Your task to perform on an android device: manage bookmarks in the chrome app Image 0: 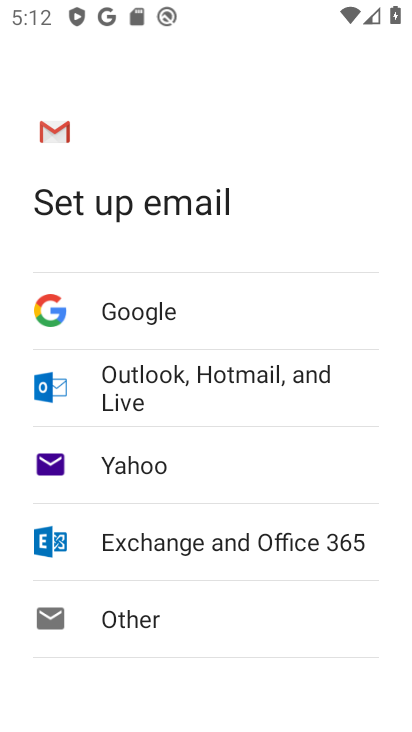
Step 0: press back button
Your task to perform on an android device: manage bookmarks in the chrome app Image 1: 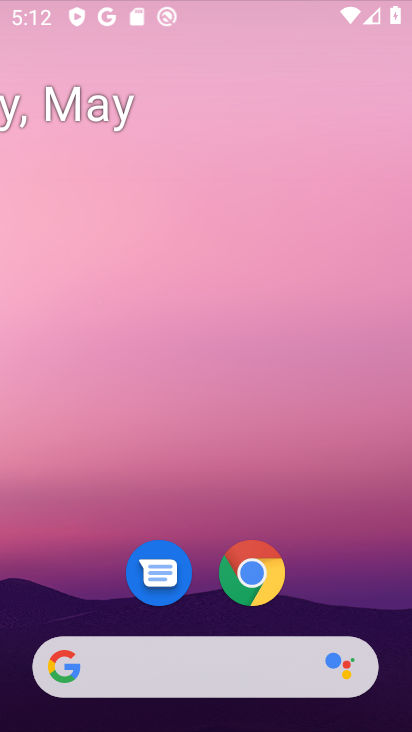
Step 1: drag from (293, 462) to (249, 0)
Your task to perform on an android device: manage bookmarks in the chrome app Image 2: 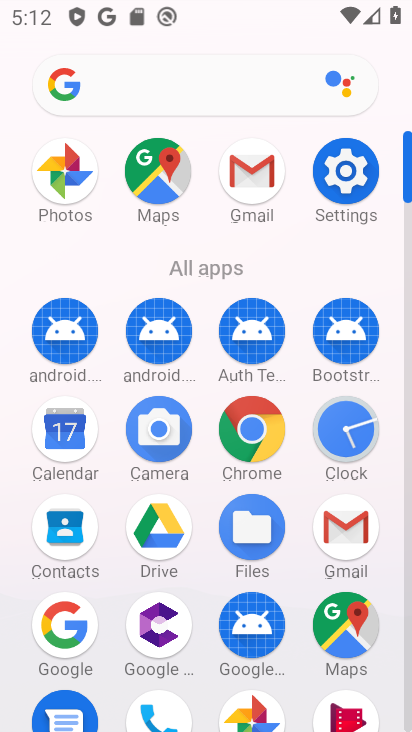
Step 2: drag from (11, 591) to (19, 237)
Your task to perform on an android device: manage bookmarks in the chrome app Image 3: 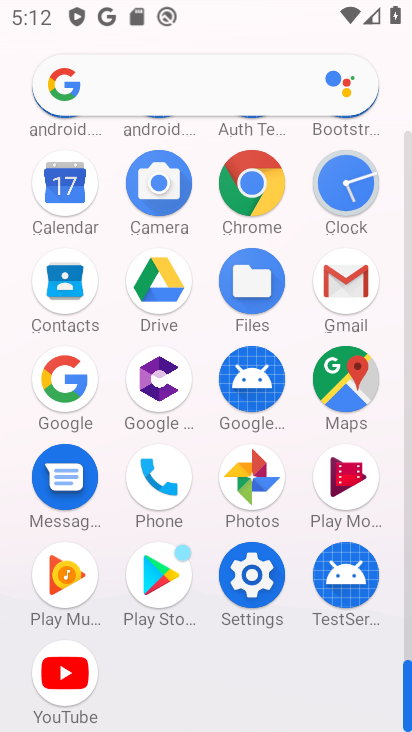
Step 3: drag from (6, 595) to (8, 268)
Your task to perform on an android device: manage bookmarks in the chrome app Image 4: 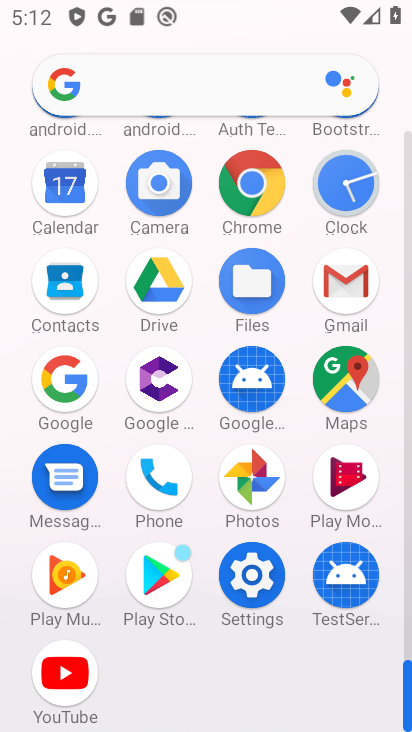
Step 4: click (251, 176)
Your task to perform on an android device: manage bookmarks in the chrome app Image 5: 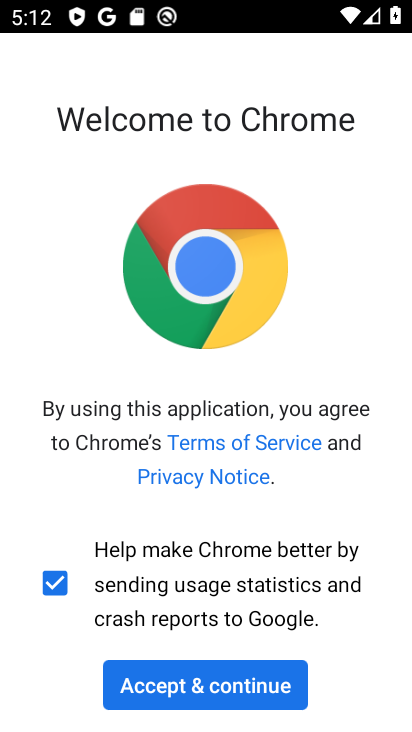
Step 5: click (236, 680)
Your task to perform on an android device: manage bookmarks in the chrome app Image 6: 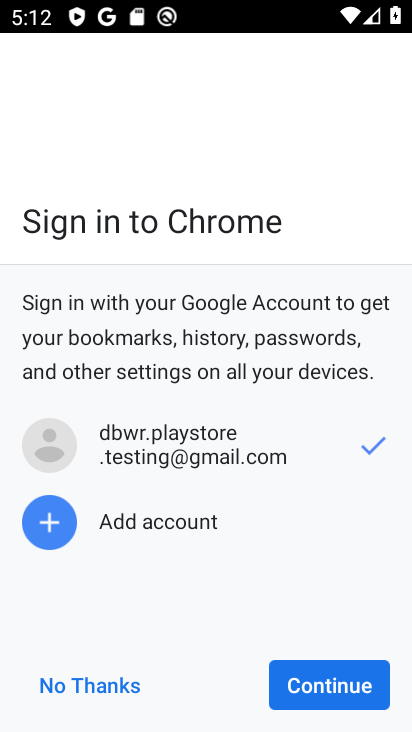
Step 6: click (339, 697)
Your task to perform on an android device: manage bookmarks in the chrome app Image 7: 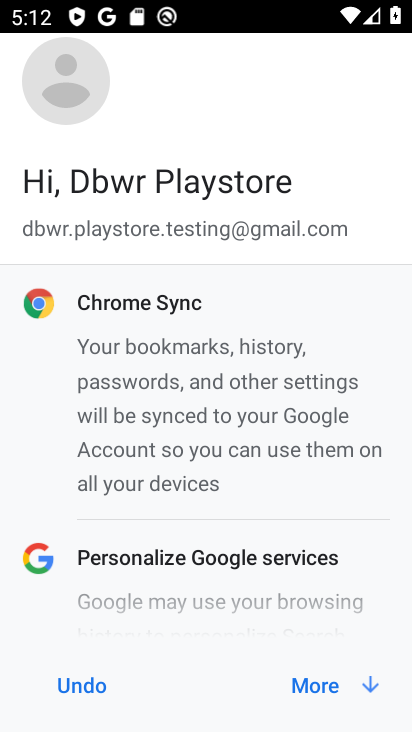
Step 7: click (315, 693)
Your task to perform on an android device: manage bookmarks in the chrome app Image 8: 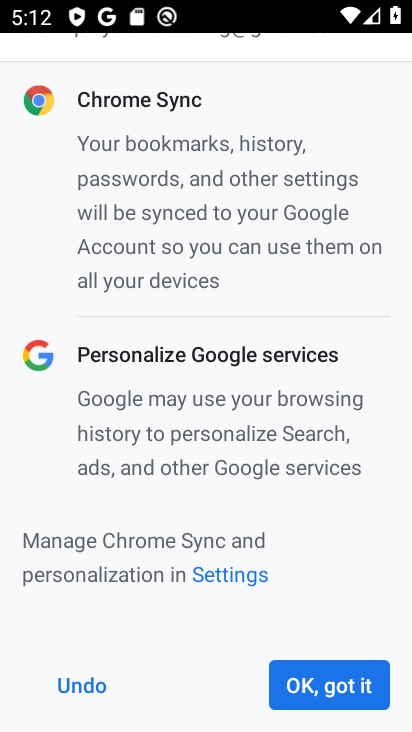
Step 8: click (314, 692)
Your task to perform on an android device: manage bookmarks in the chrome app Image 9: 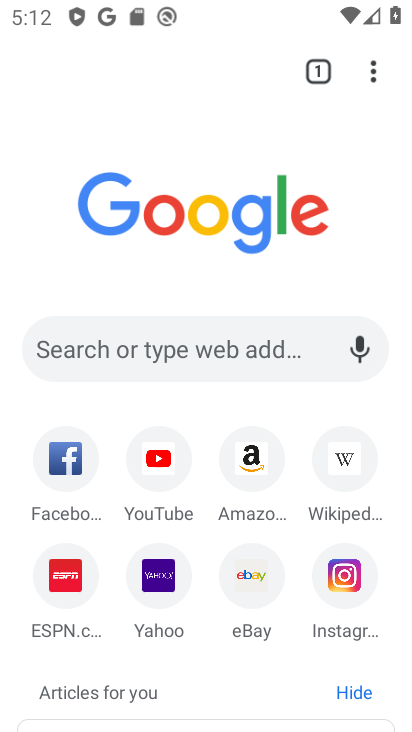
Step 9: task complete